Your task to perform on an android device: toggle priority inbox in the gmail app Image 0: 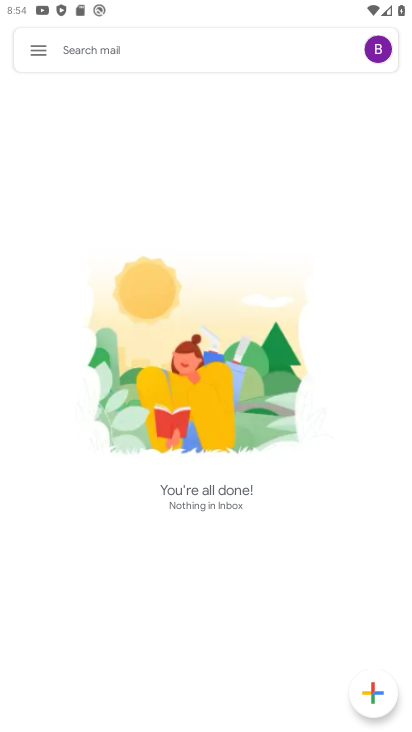
Step 0: click (56, 51)
Your task to perform on an android device: toggle priority inbox in the gmail app Image 1: 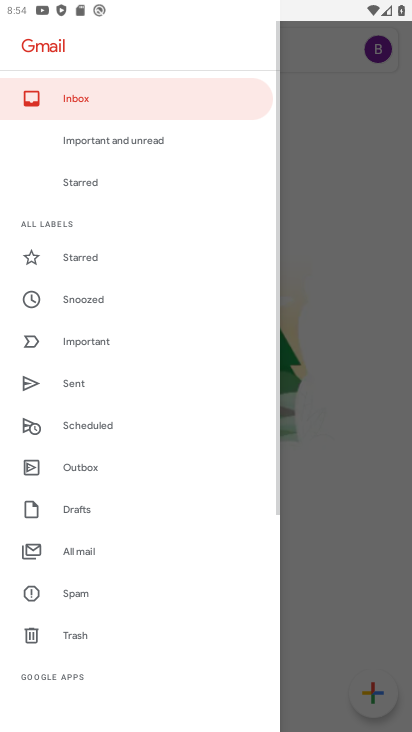
Step 1: drag from (112, 697) to (141, 265)
Your task to perform on an android device: toggle priority inbox in the gmail app Image 2: 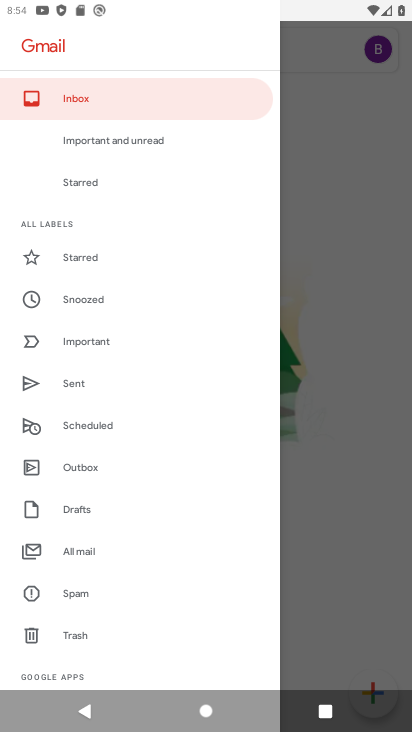
Step 2: drag from (95, 614) to (130, 191)
Your task to perform on an android device: toggle priority inbox in the gmail app Image 3: 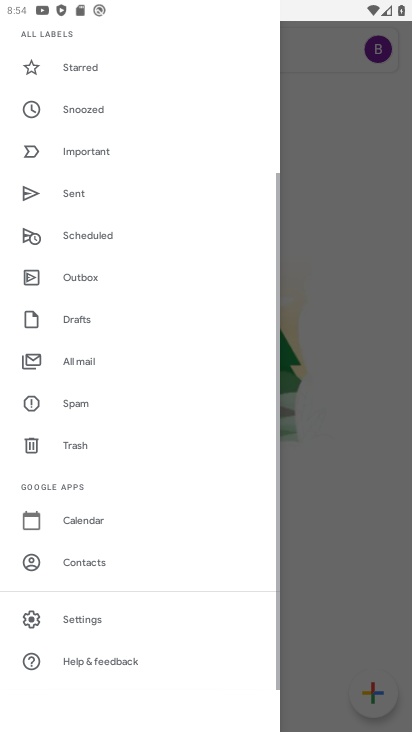
Step 3: click (116, 626)
Your task to perform on an android device: toggle priority inbox in the gmail app Image 4: 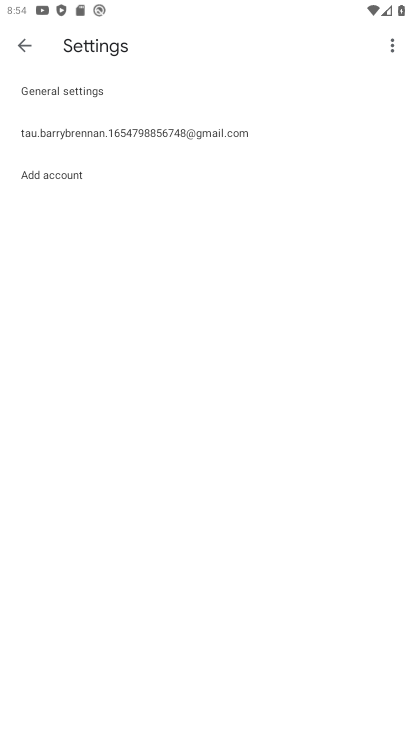
Step 4: click (202, 133)
Your task to perform on an android device: toggle priority inbox in the gmail app Image 5: 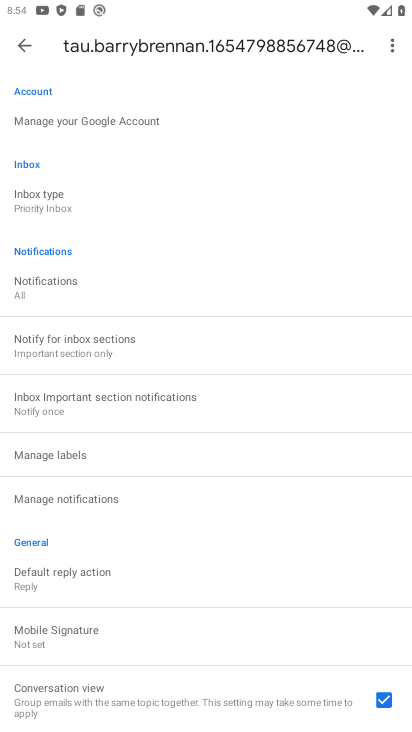
Step 5: drag from (144, 623) to (244, 168)
Your task to perform on an android device: toggle priority inbox in the gmail app Image 6: 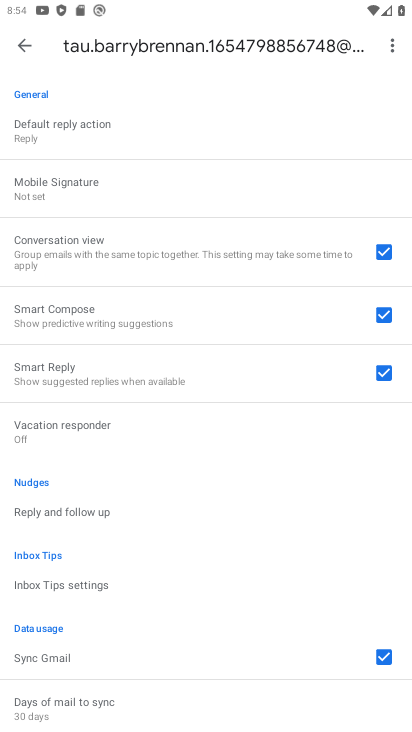
Step 6: drag from (165, 171) to (79, 712)
Your task to perform on an android device: toggle priority inbox in the gmail app Image 7: 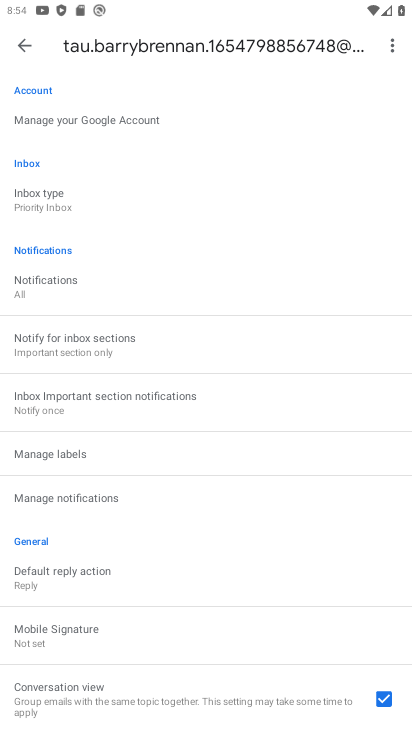
Step 7: click (78, 205)
Your task to perform on an android device: toggle priority inbox in the gmail app Image 8: 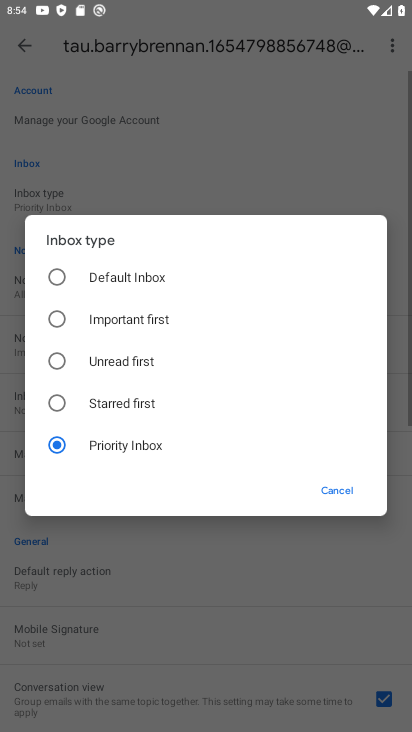
Step 8: click (118, 280)
Your task to perform on an android device: toggle priority inbox in the gmail app Image 9: 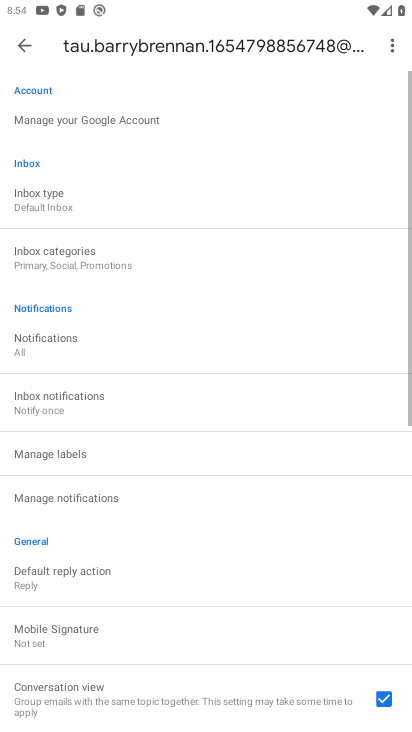
Step 9: task complete